Your task to perform on an android device: Open Chrome and go to settings Image 0: 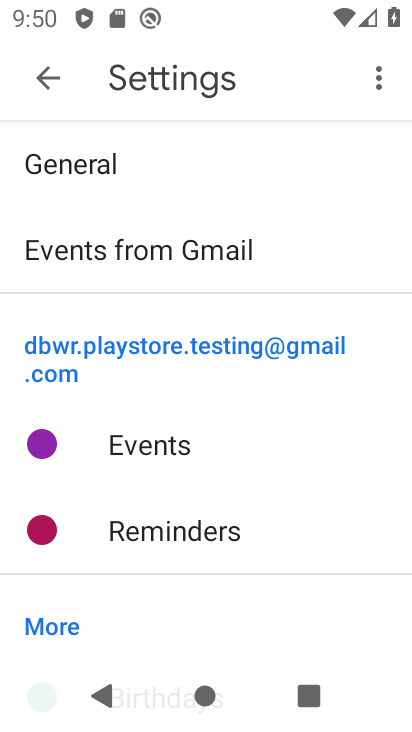
Step 0: press back button
Your task to perform on an android device: Open Chrome and go to settings Image 1: 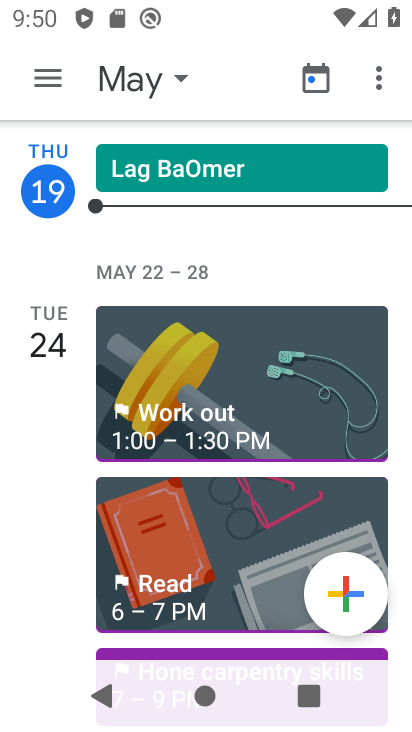
Step 1: press back button
Your task to perform on an android device: Open Chrome and go to settings Image 2: 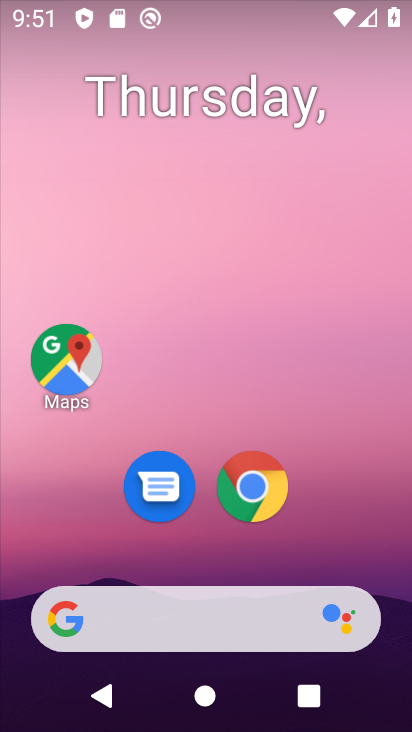
Step 2: click (270, 471)
Your task to perform on an android device: Open Chrome and go to settings Image 3: 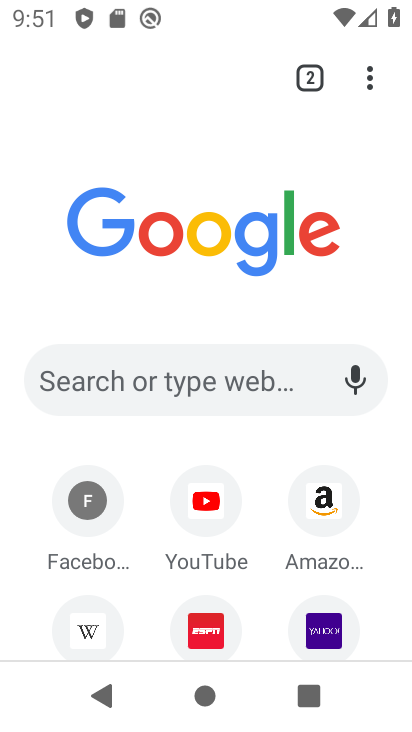
Step 3: task complete